Your task to perform on an android device: install app "Facebook" Image 0: 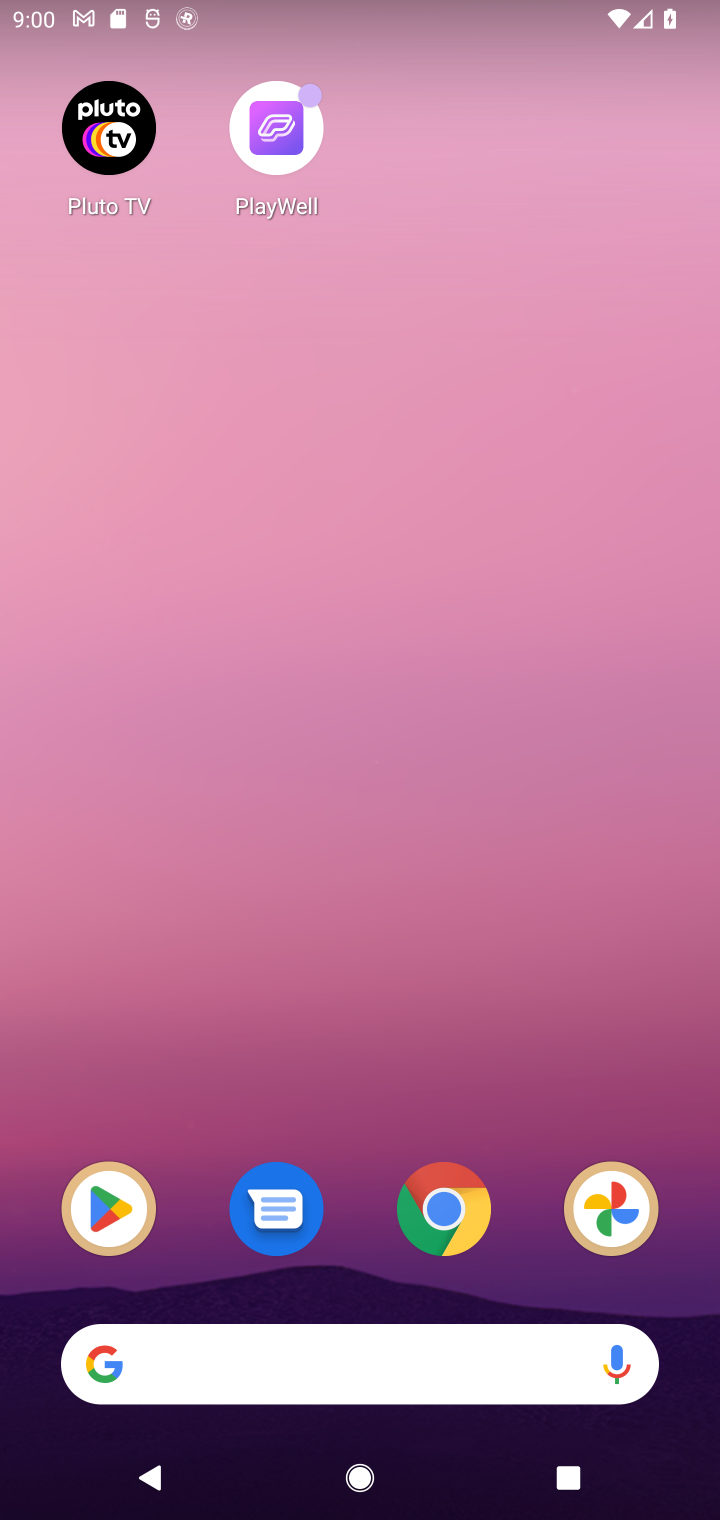
Step 0: drag from (308, 1391) to (466, 104)
Your task to perform on an android device: install app "Facebook" Image 1: 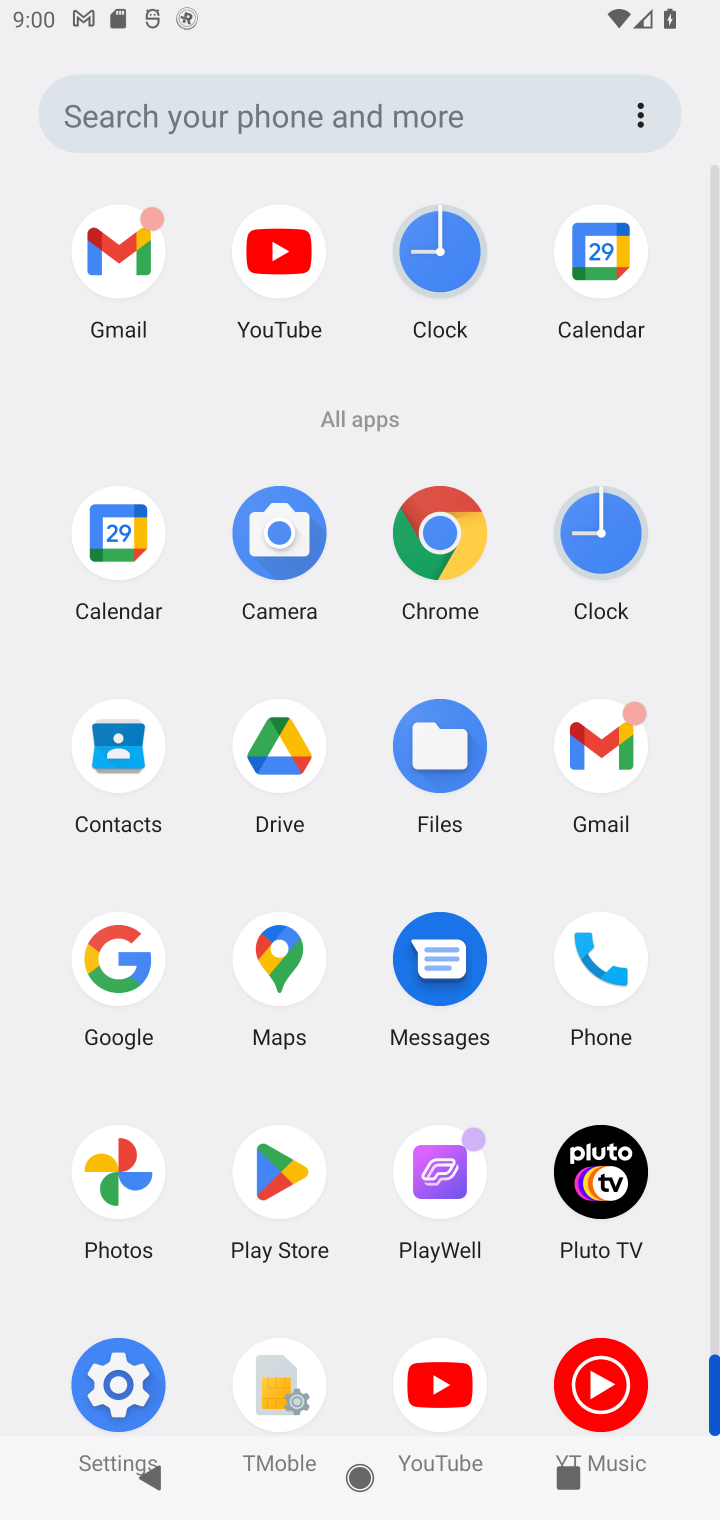
Step 1: click (288, 1177)
Your task to perform on an android device: install app "Facebook" Image 2: 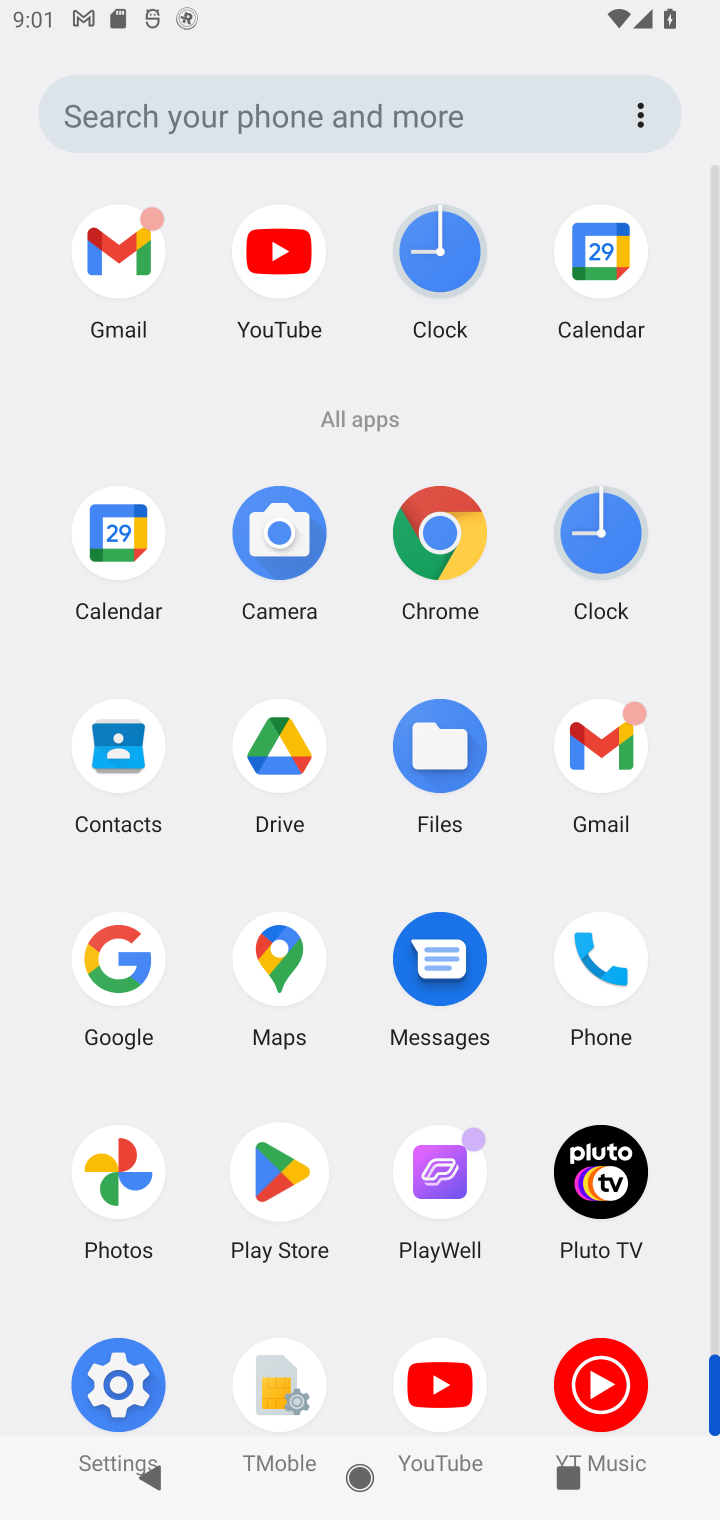
Step 2: click (284, 1174)
Your task to perform on an android device: install app "Facebook" Image 3: 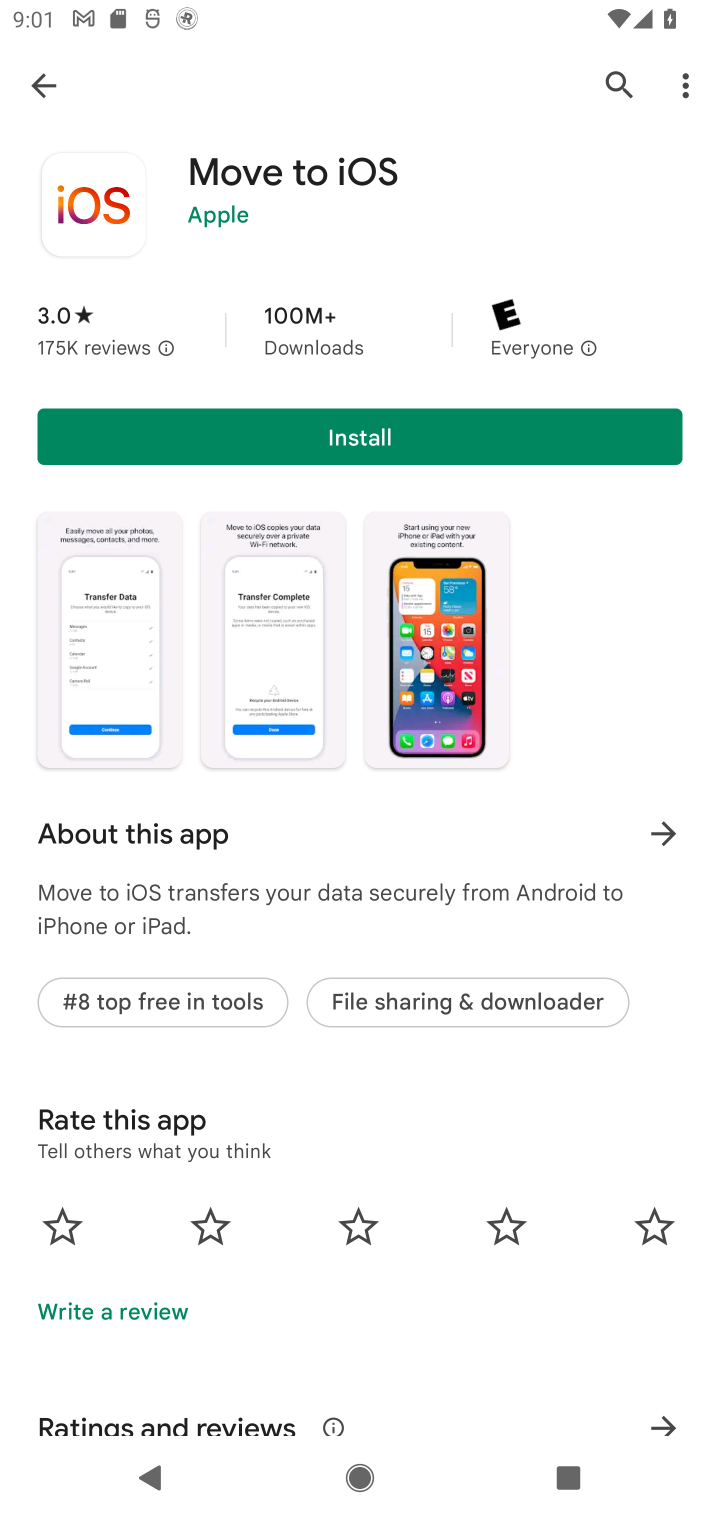
Step 3: click (610, 74)
Your task to perform on an android device: install app "Facebook" Image 4: 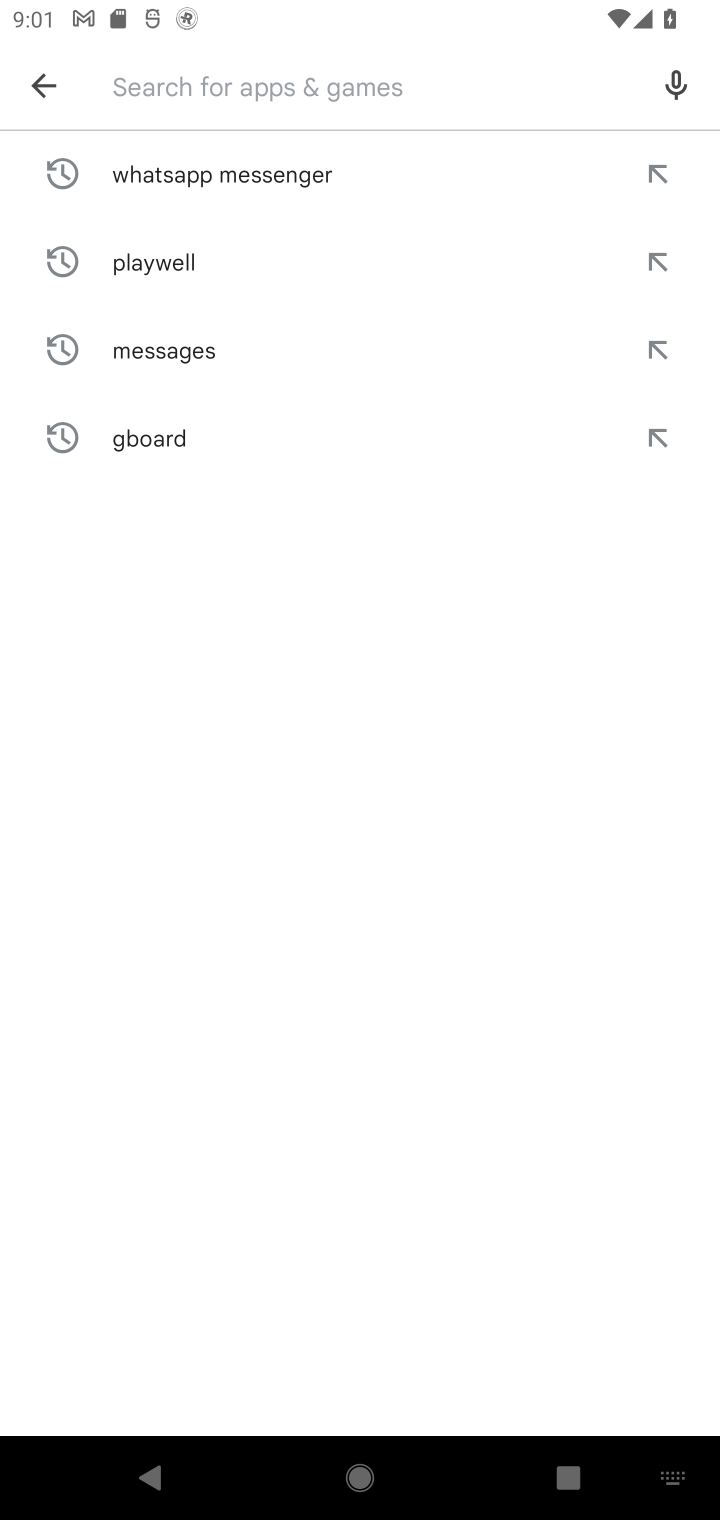
Step 4: type "Facebook"
Your task to perform on an android device: install app "Facebook" Image 5: 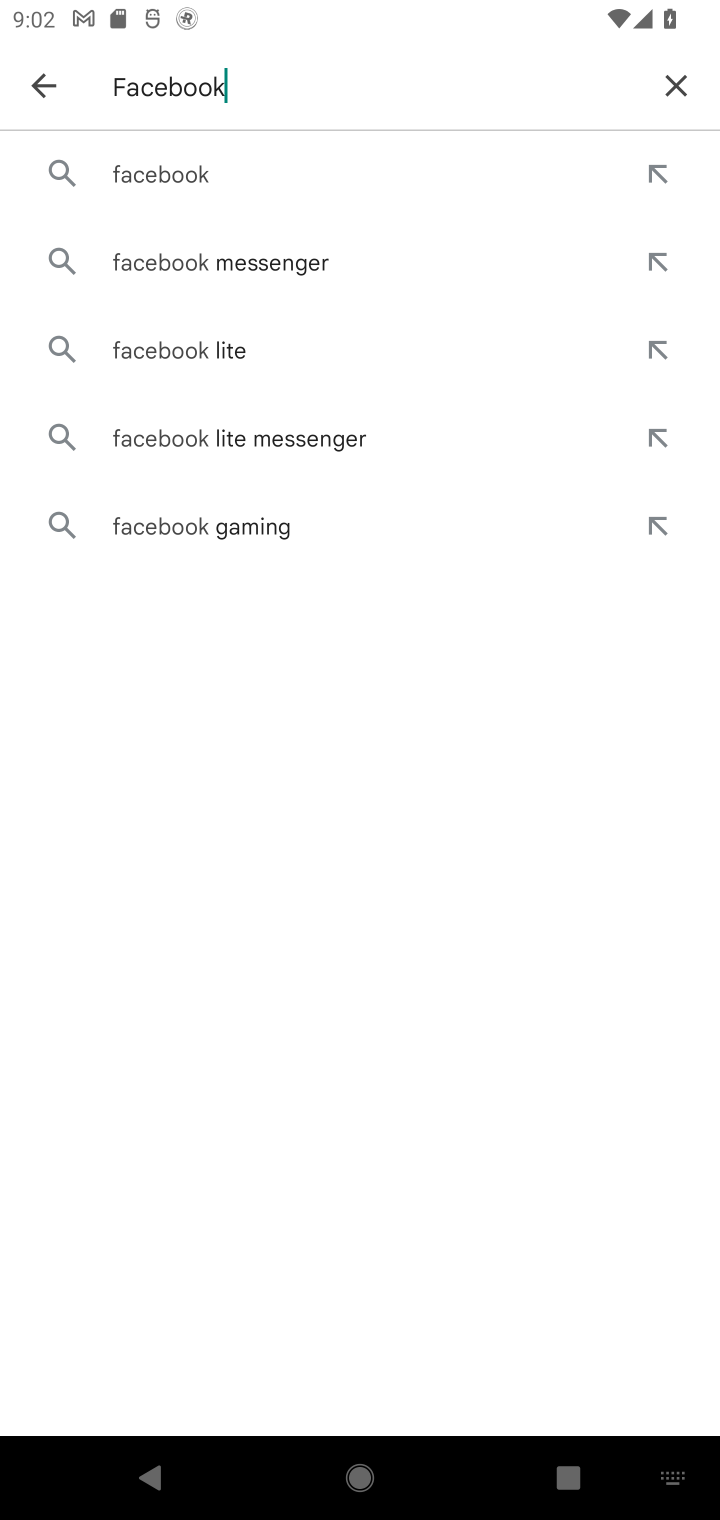
Step 5: click (191, 183)
Your task to perform on an android device: install app "Facebook" Image 6: 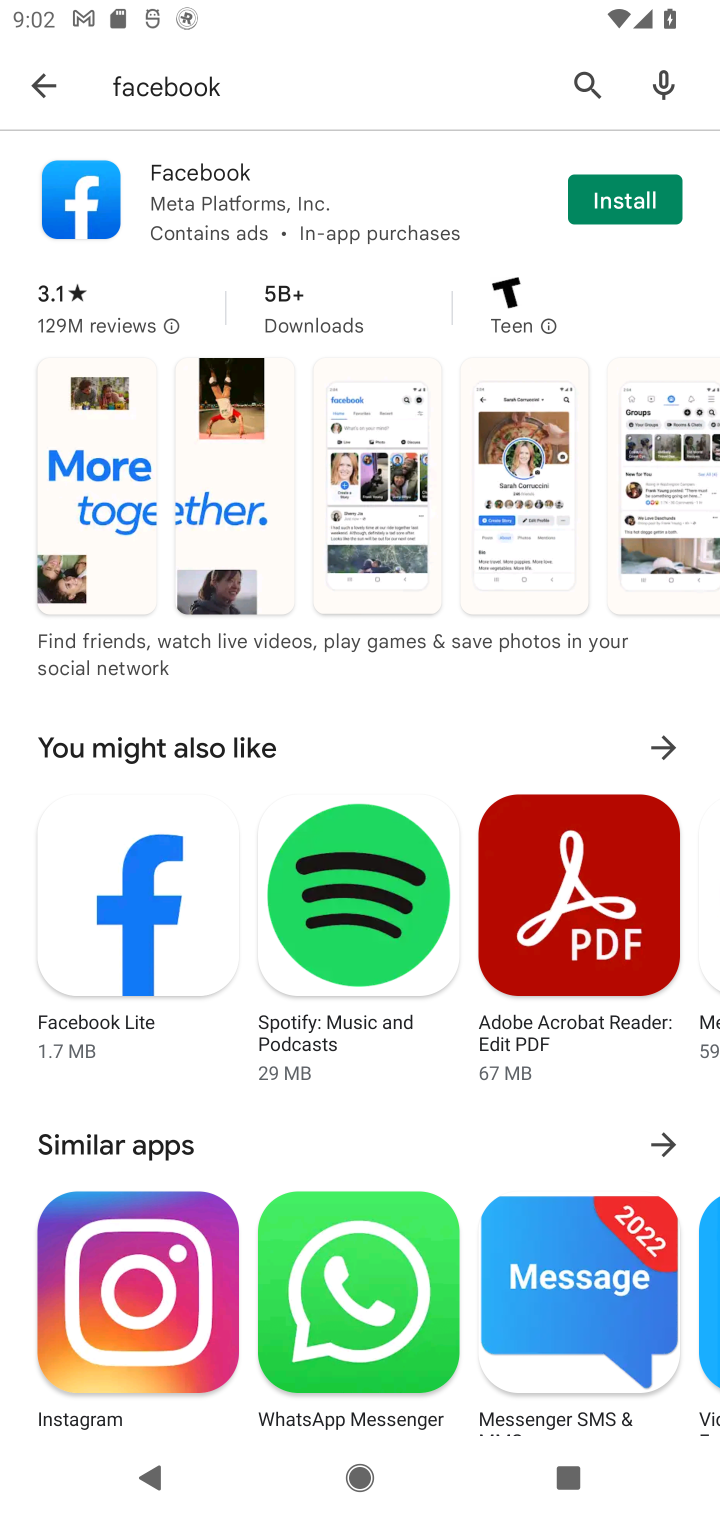
Step 6: click (620, 201)
Your task to perform on an android device: install app "Facebook" Image 7: 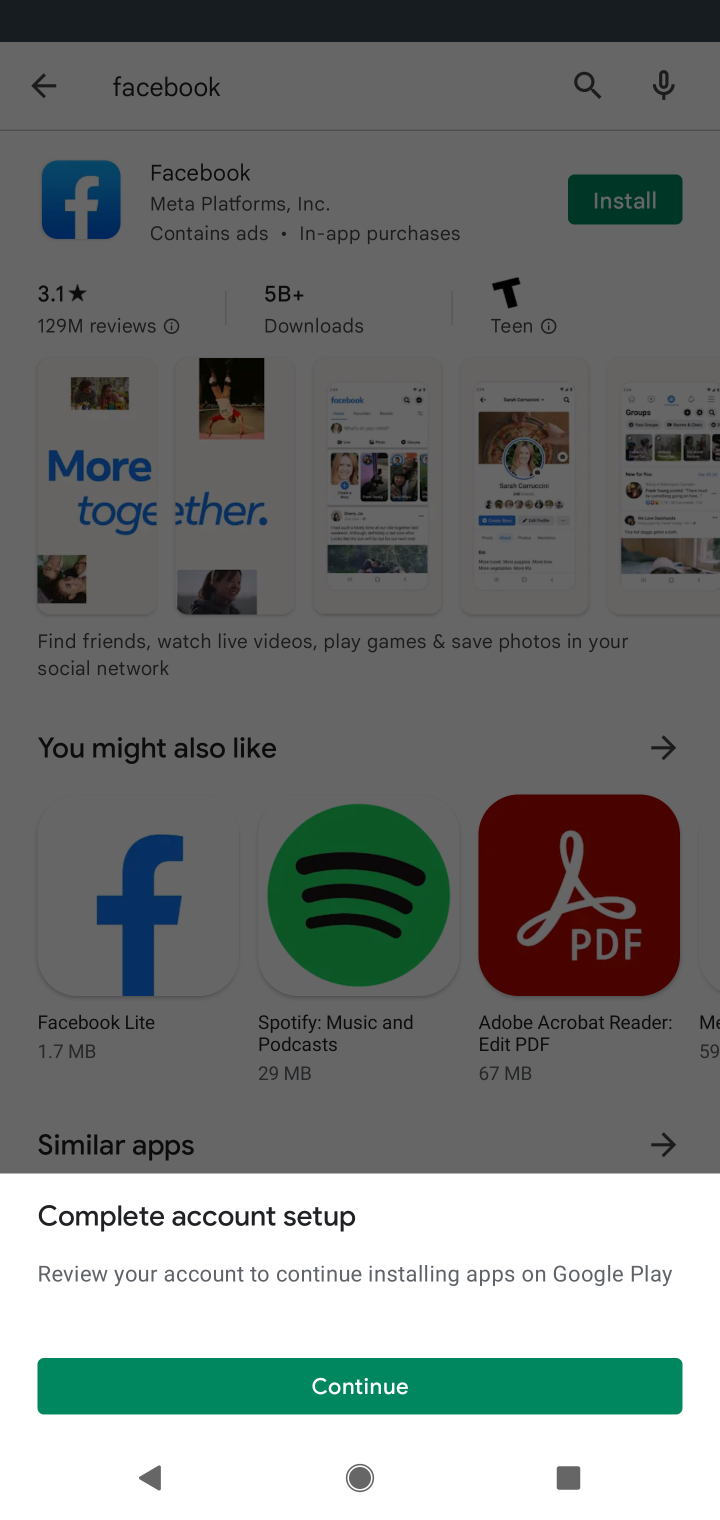
Step 7: click (351, 1380)
Your task to perform on an android device: install app "Facebook" Image 8: 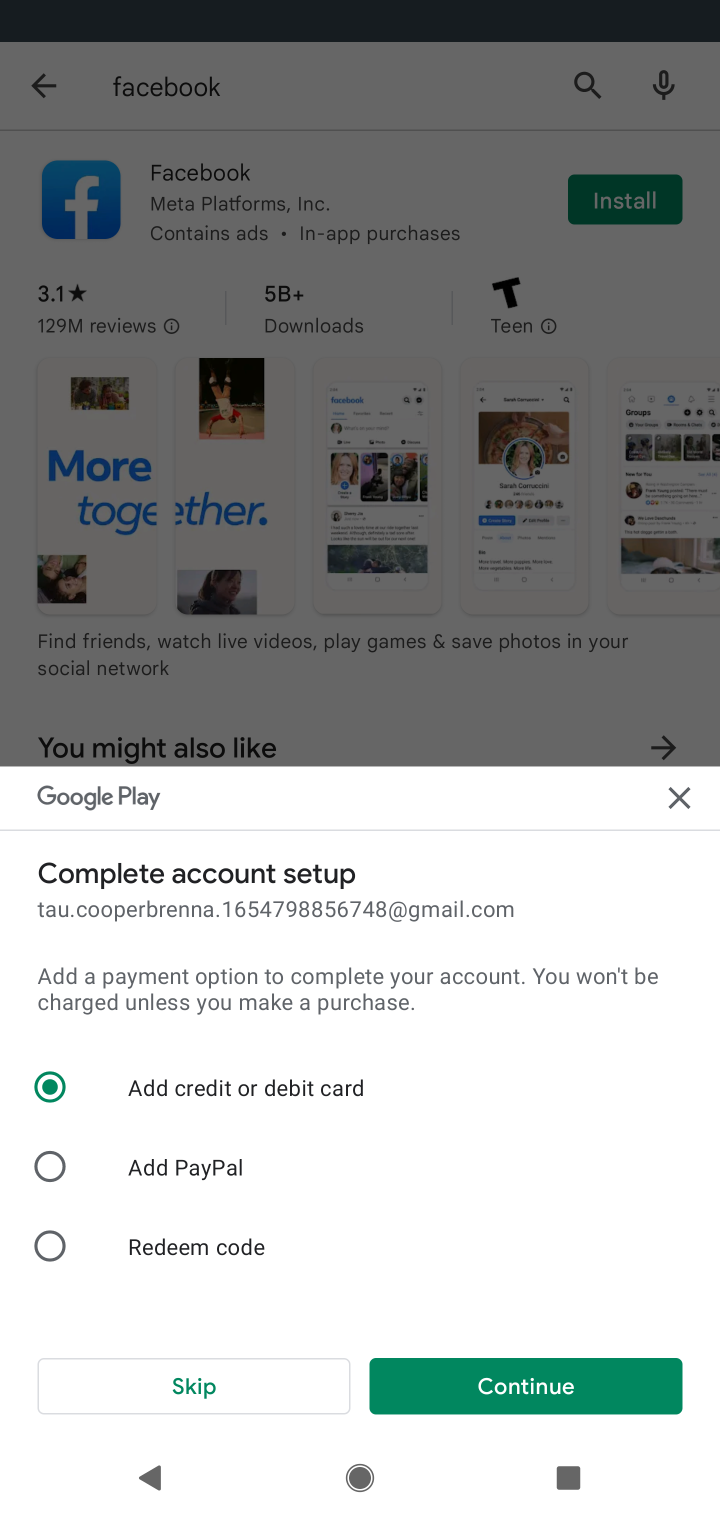
Step 8: click (210, 1395)
Your task to perform on an android device: install app "Facebook" Image 9: 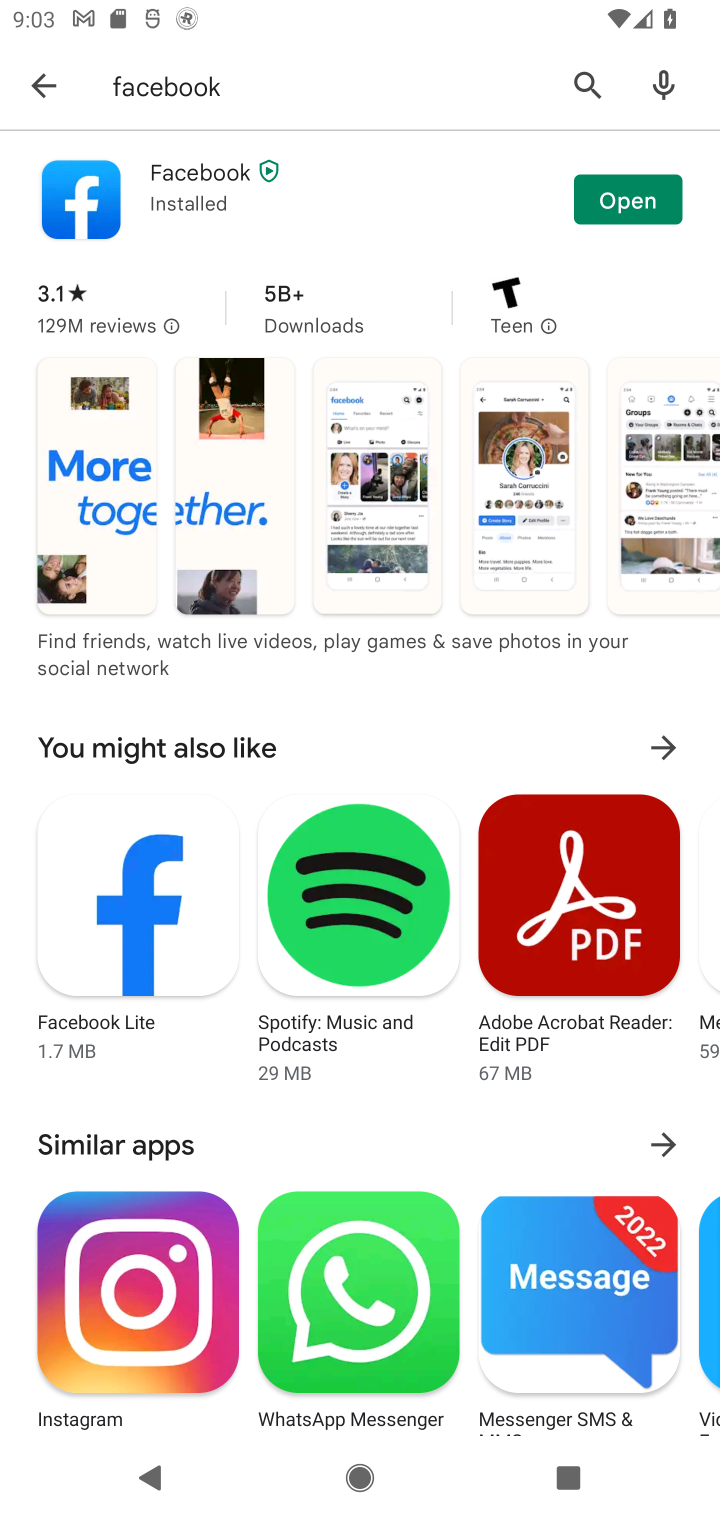
Step 9: task complete